Your task to perform on an android device: turn on javascript in the chrome app Image 0: 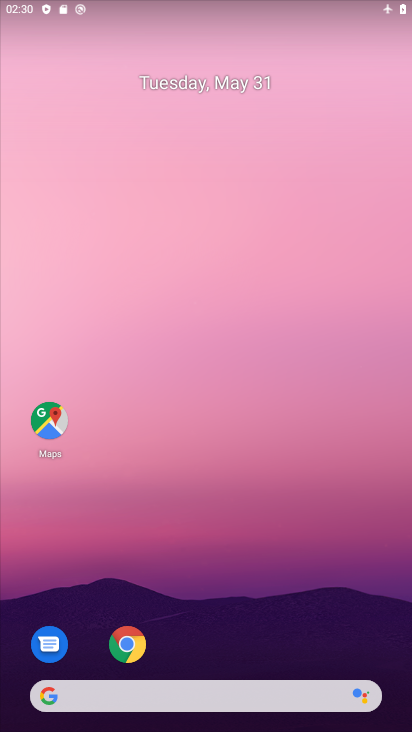
Step 0: click (131, 643)
Your task to perform on an android device: turn on javascript in the chrome app Image 1: 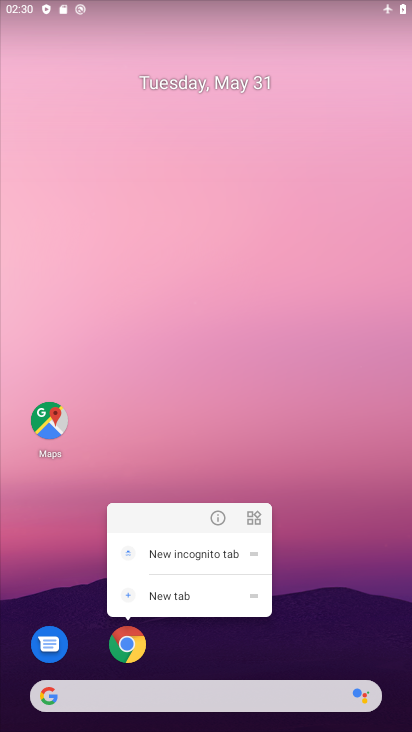
Step 1: click (122, 647)
Your task to perform on an android device: turn on javascript in the chrome app Image 2: 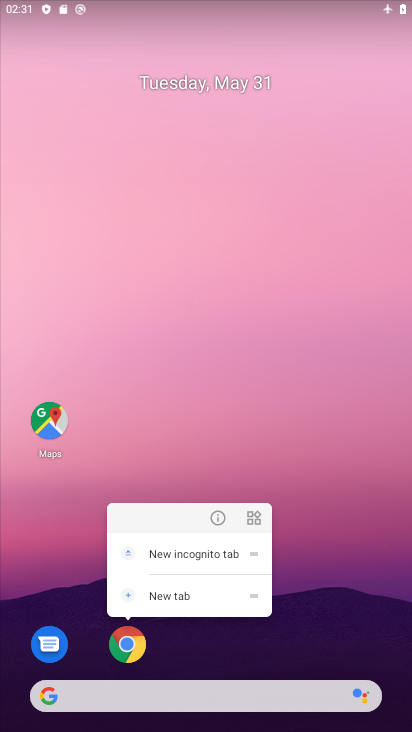
Step 2: click (122, 647)
Your task to perform on an android device: turn on javascript in the chrome app Image 3: 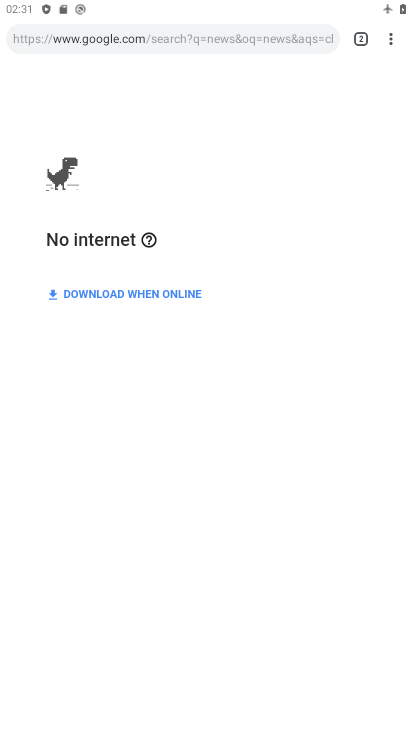
Step 3: click (397, 31)
Your task to perform on an android device: turn on javascript in the chrome app Image 4: 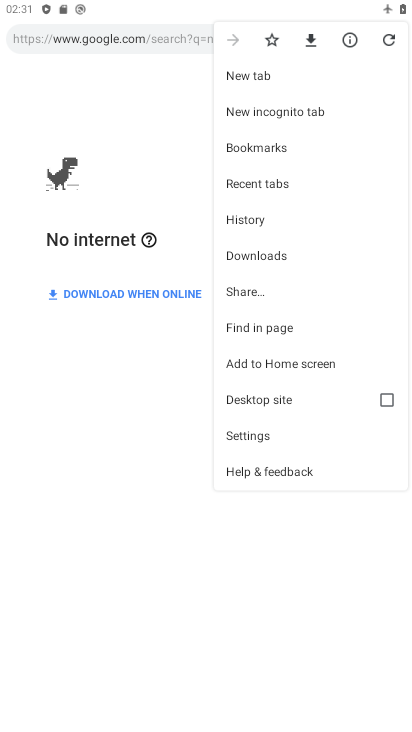
Step 4: click (254, 434)
Your task to perform on an android device: turn on javascript in the chrome app Image 5: 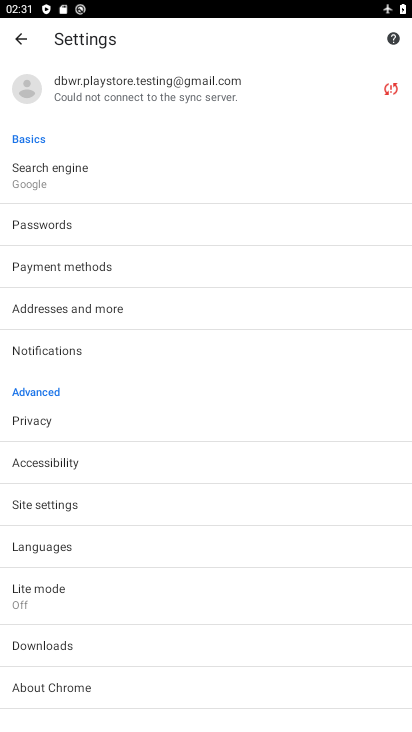
Step 5: click (70, 513)
Your task to perform on an android device: turn on javascript in the chrome app Image 6: 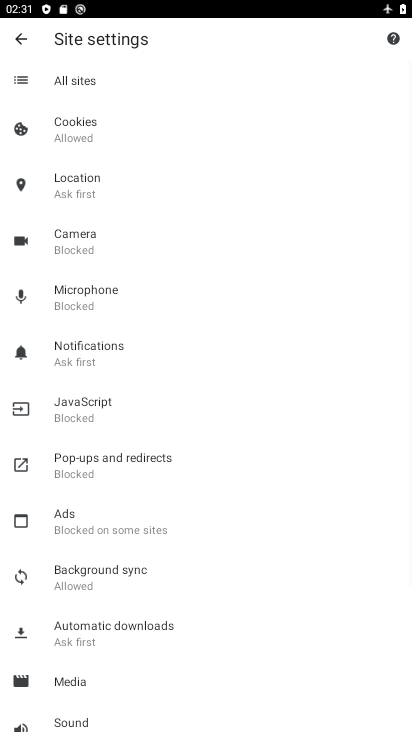
Step 6: click (108, 411)
Your task to perform on an android device: turn on javascript in the chrome app Image 7: 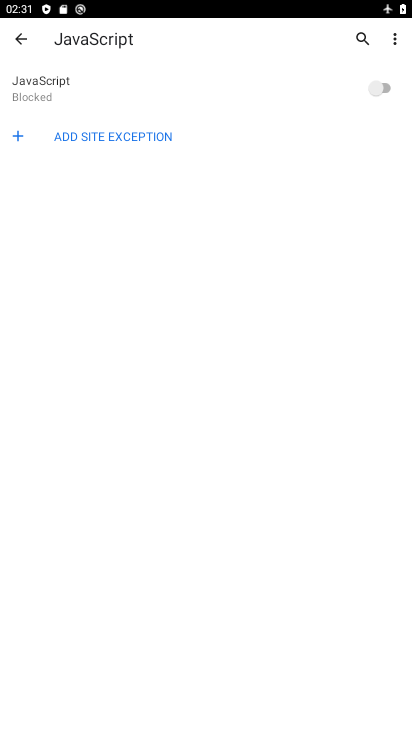
Step 7: click (377, 92)
Your task to perform on an android device: turn on javascript in the chrome app Image 8: 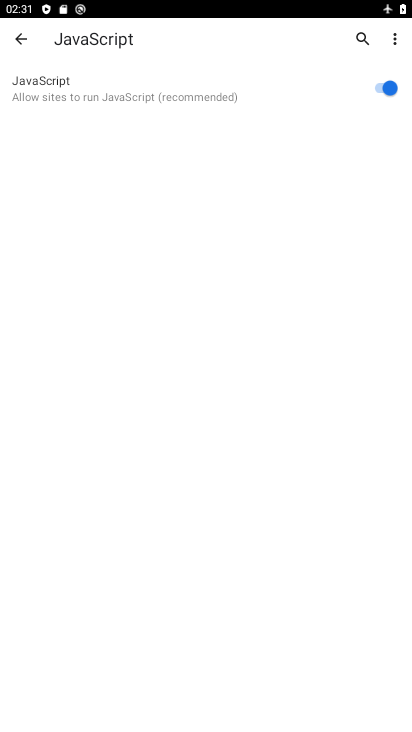
Step 8: task complete